Your task to perform on an android device: turn vacation reply on in the gmail app Image 0: 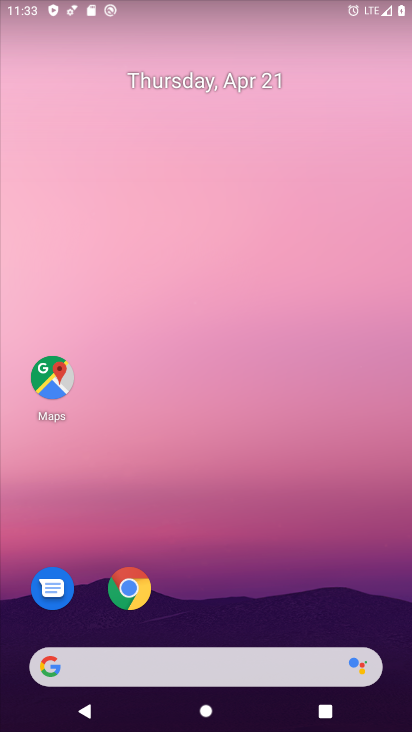
Step 0: drag from (278, 689) to (321, 102)
Your task to perform on an android device: turn vacation reply on in the gmail app Image 1: 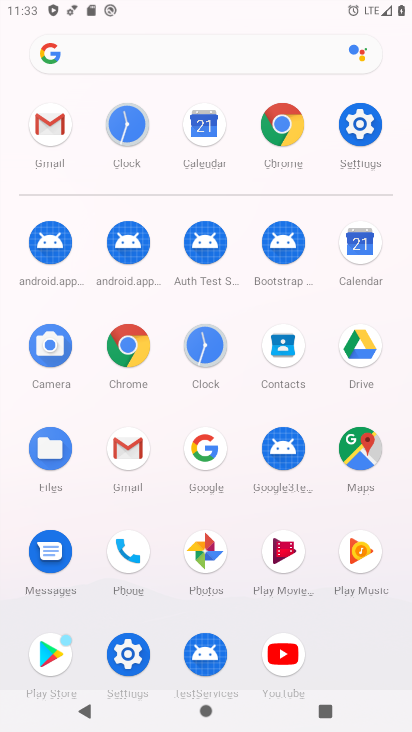
Step 1: click (42, 119)
Your task to perform on an android device: turn vacation reply on in the gmail app Image 2: 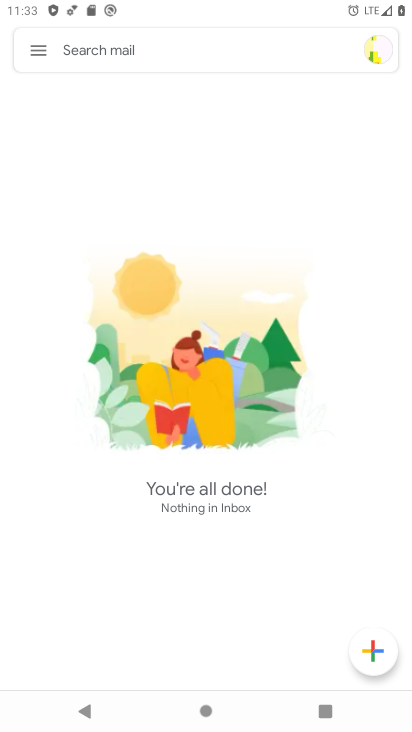
Step 2: click (32, 58)
Your task to perform on an android device: turn vacation reply on in the gmail app Image 3: 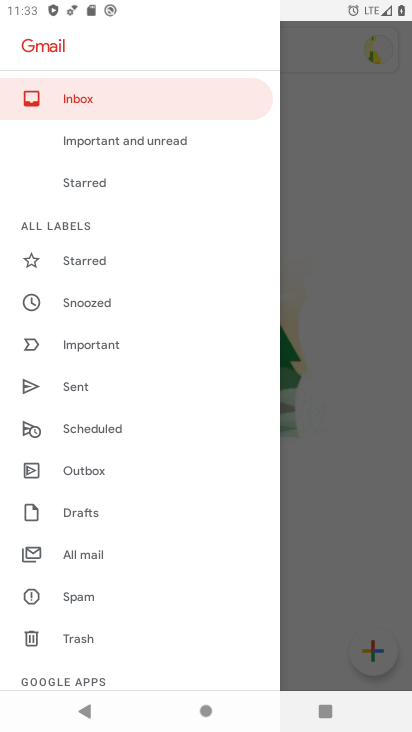
Step 3: drag from (62, 523) to (127, 363)
Your task to perform on an android device: turn vacation reply on in the gmail app Image 4: 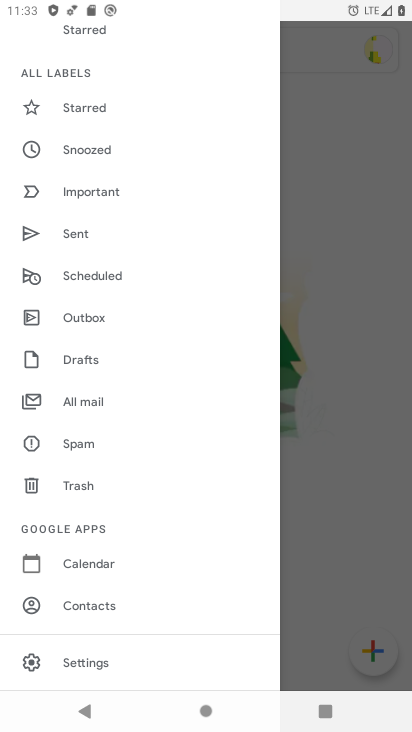
Step 4: click (73, 661)
Your task to perform on an android device: turn vacation reply on in the gmail app Image 5: 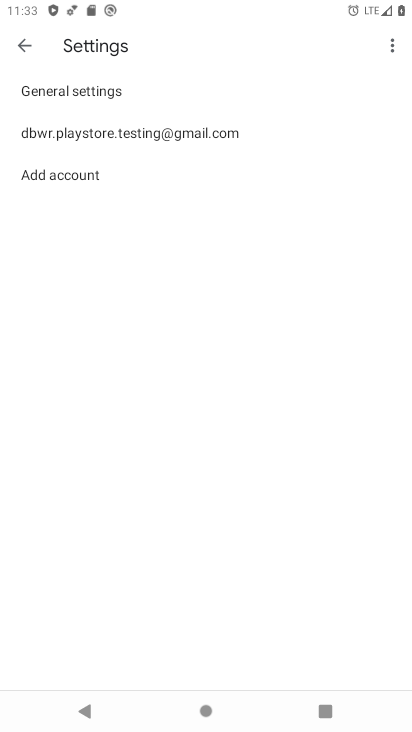
Step 5: click (168, 131)
Your task to perform on an android device: turn vacation reply on in the gmail app Image 6: 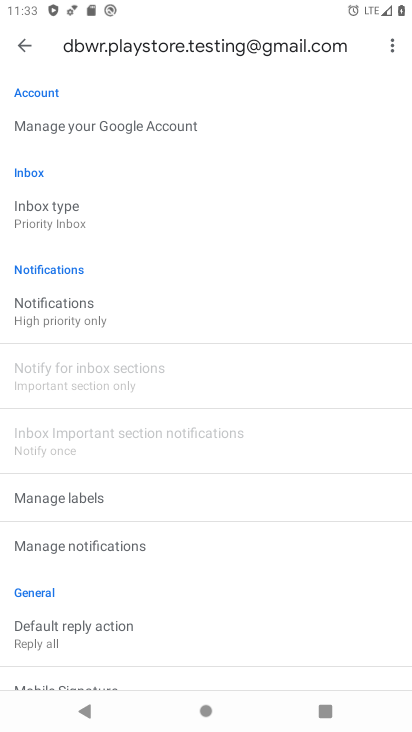
Step 6: drag from (183, 461) to (233, 258)
Your task to perform on an android device: turn vacation reply on in the gmail app Image 7: 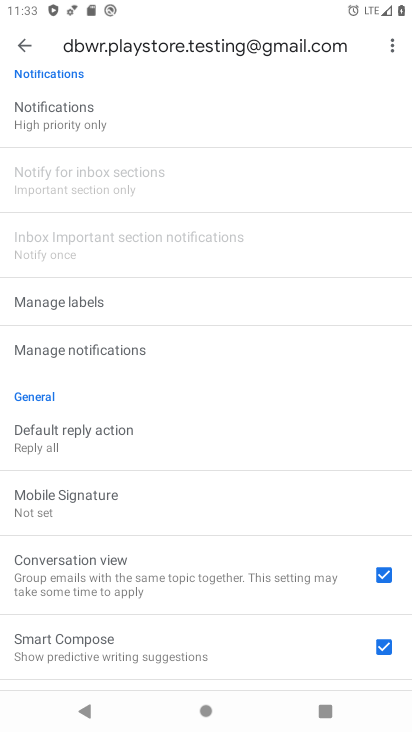
Step 7: drag from (132, 585) to (159, 333)
Your task to perform on an android device: turn vacation reply on in the gmail app Image 8: 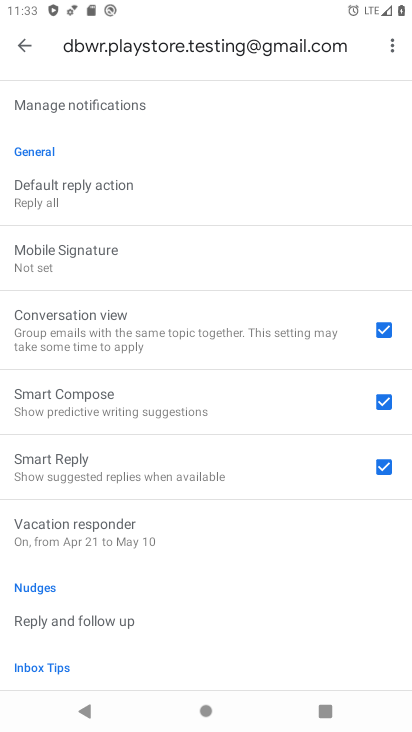
Step 8: drag from (125, 562) to (132, 527)
Your task to perform on an android device: turn vacation reply on in the gmail app Image 9: 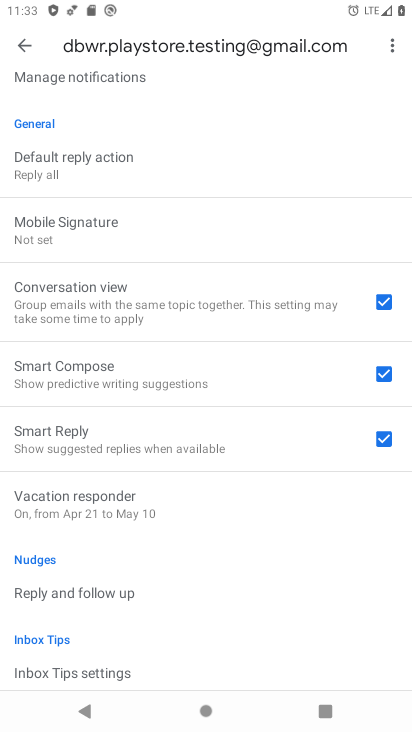
Step 9: click (147, 502)
Your task to perform on an android device: turn vacation reply on in the gmail app Image 10: 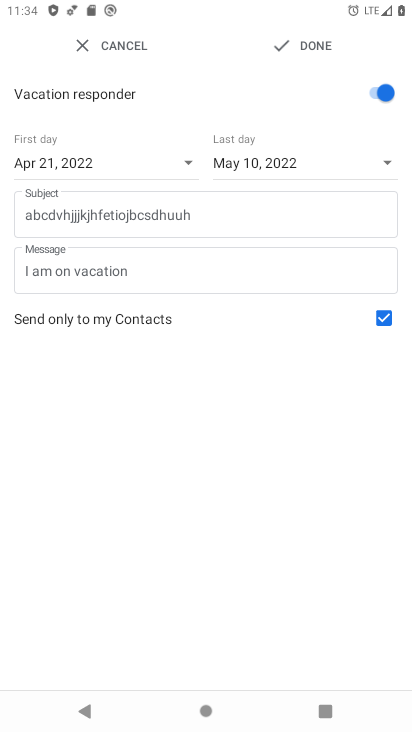
Step 10: task complete